Your task to perform on an android device: What's the weather going to be tomorrow? Image 0: 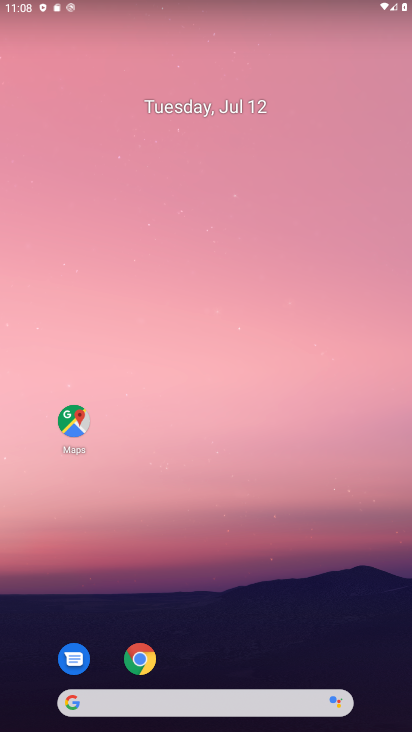
Step 0: drag from (286, 621) to (243, 173)
Your task to perform on an android device: What's the weather going to be tomorrow? Image 1: 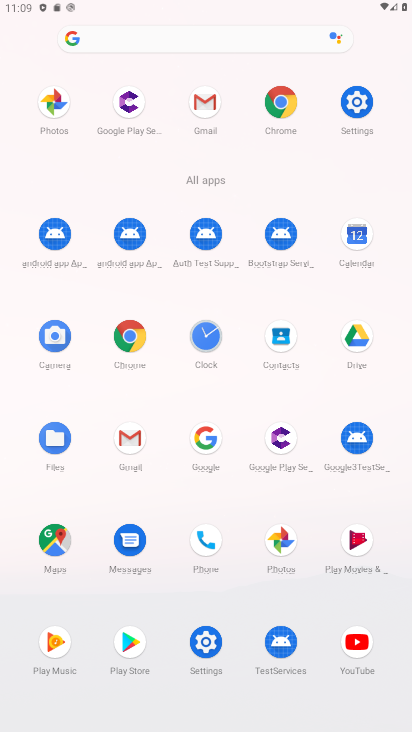
Step 1: click (283, 124)
Your task to perform on an android device: What's the weather going to be tomorrow? Image 2: 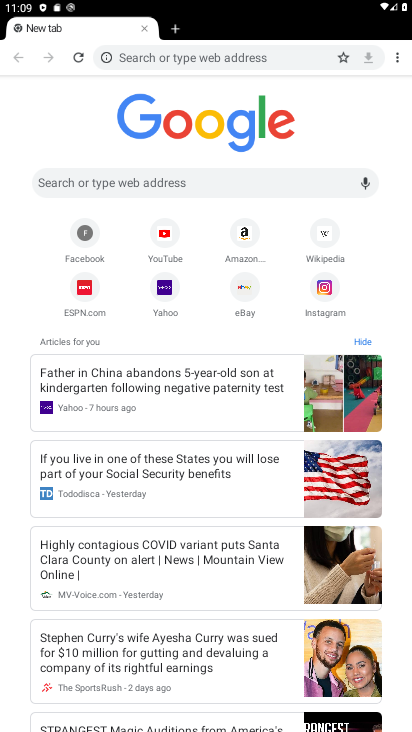
Step 2: click (261, 56)
Your task to perform on an android device: What's the weather going to be tomorrow? Image 3: 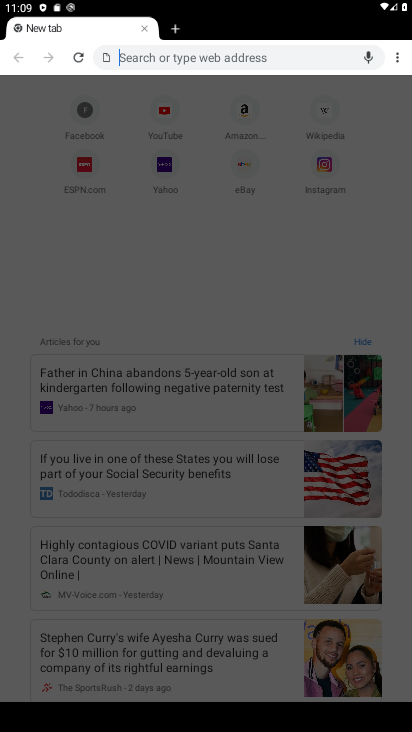
Step 3: type "What's the weather going to be tomorrow?"
Your task to perform on an android device: What's the weather going to be tomorrow? Image 4: 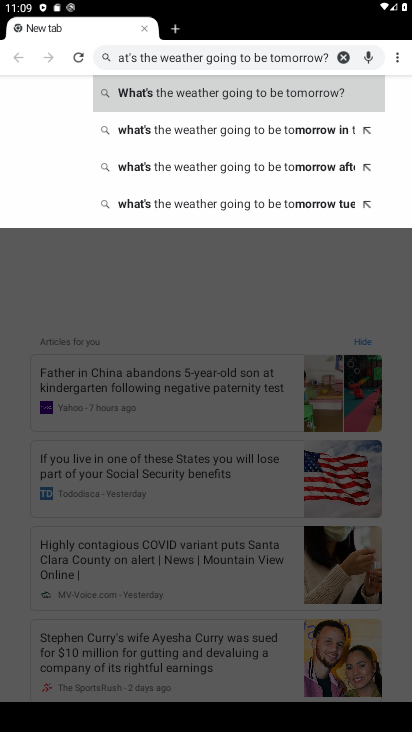
Step 4: click (337, 83)
Your task to perform on an android device: What's the weather going to be tomorrow? Image 5: 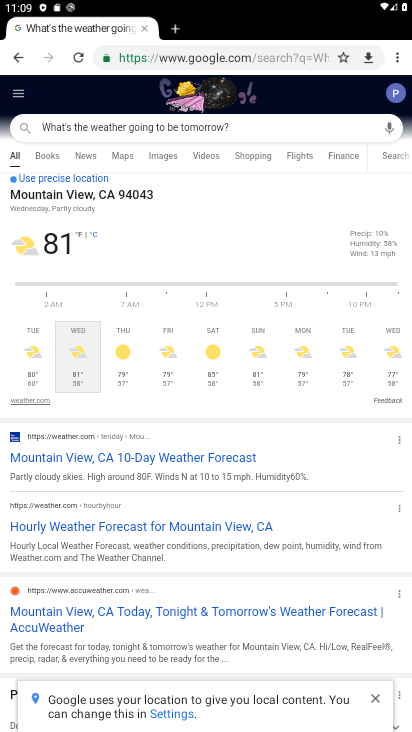
Step 5: task complete